Your task to perform on an android device: toggle location history Image 0: 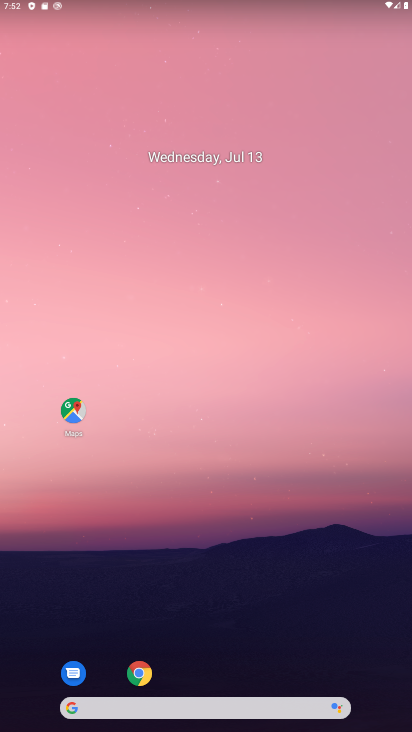
Step 0: drag from (310, 647) to (276, 159)
Your task to perform on an android device: toggle location history Image 1: 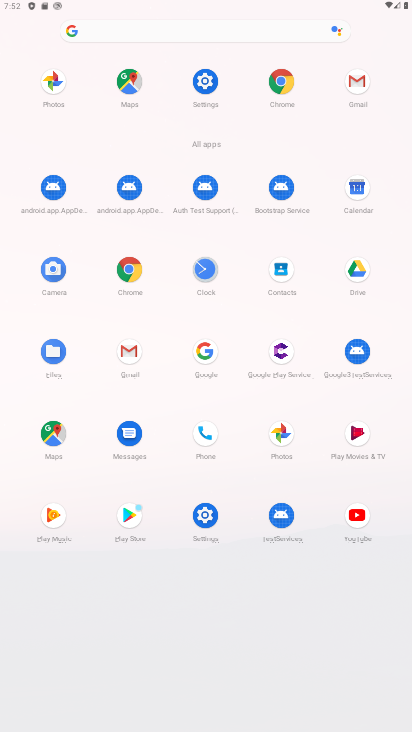
Step 1: click (204, 84)
Your task to perform on an android device: toggle location history Image 2: 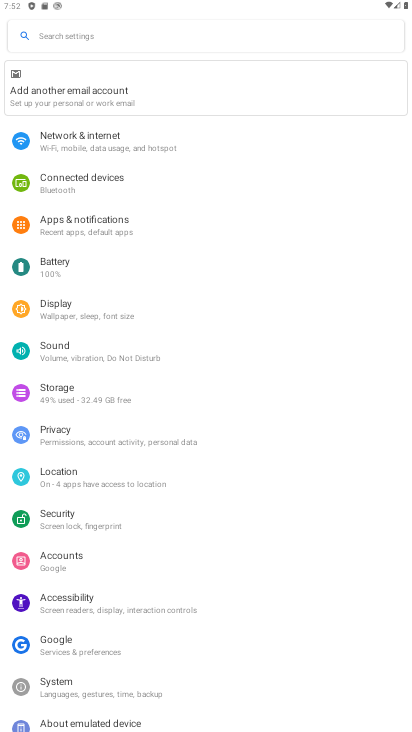
Step 2: click (76, 473)
Your task to perform on an android device: toggle location history Image 3: 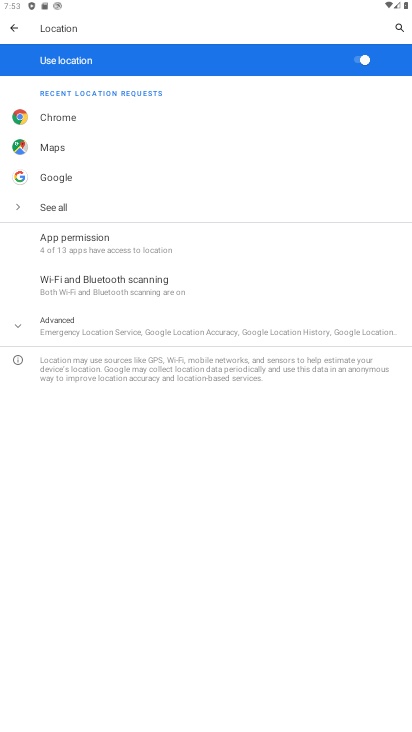
Step 3: click (125, 330)
Your task to perform on an android device: toggle location history Image 4: 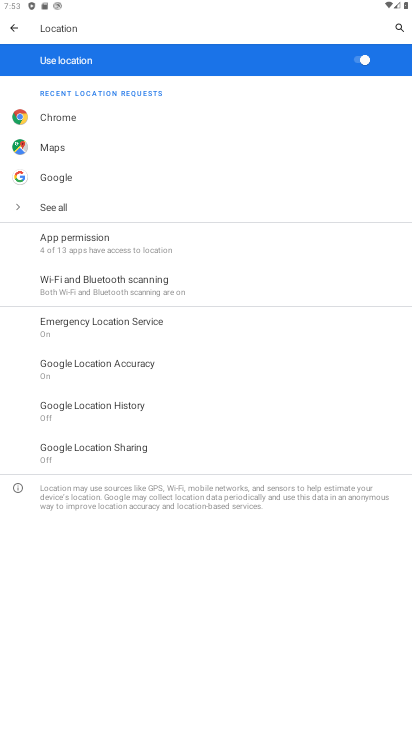
Step 4: click (102, 407)
Your task to perform on an android device: toggle location history Image 5: 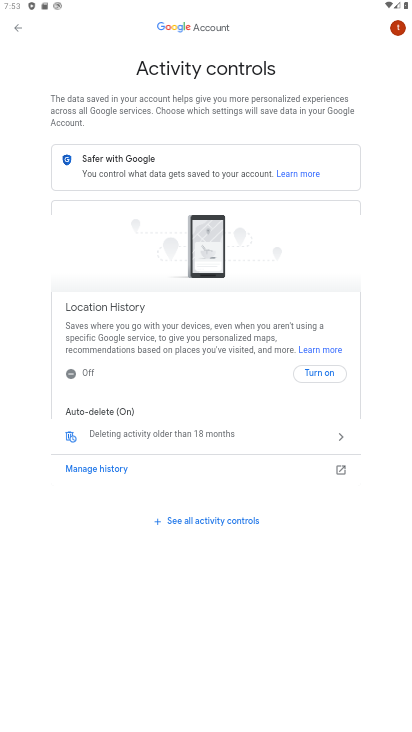
Step 5: click (318, 369)
Your task to perform on an android device: toggle location history Image 6: 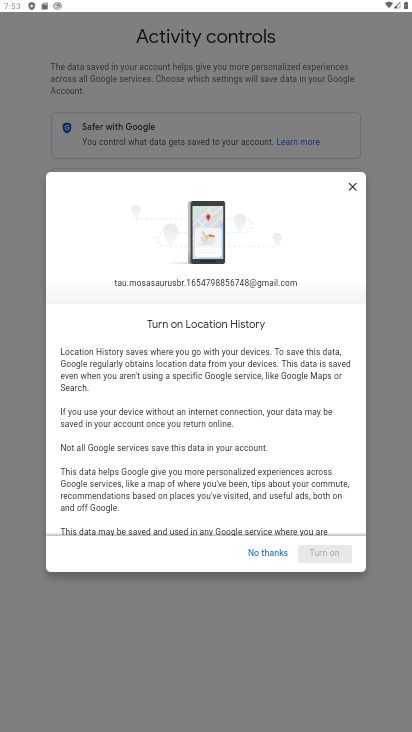
Step 6: drag from (291, 488) to (299, 220)
Your task to perform on an android device: toggle location history Image 7: 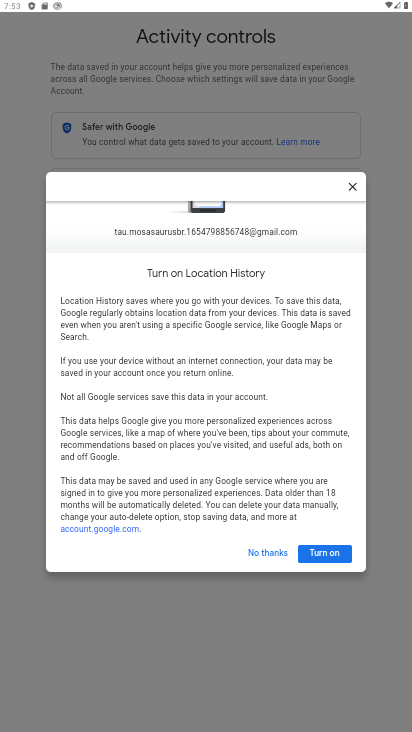
Step 7: click (335, 557)
Your task to perform on an android device: toggle location history Image 8: 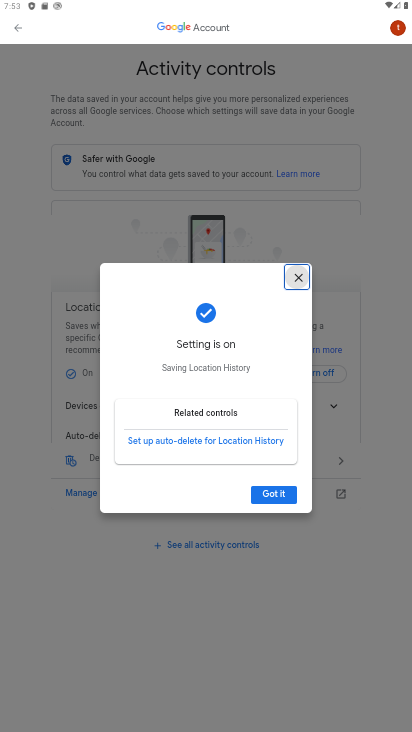
Step 8: task complete